Your task to perform on an android device: Open the calendar and show me this week's events? Image 0: 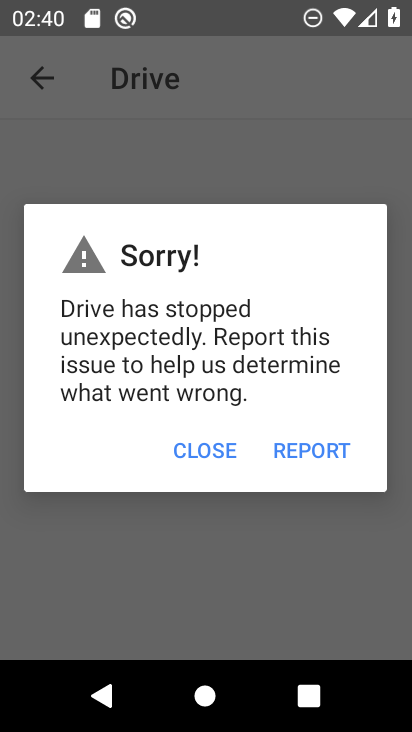
Step 0: press home button
Your task to perform on an android device: Open the calendar and show me this week's events? Image 1: 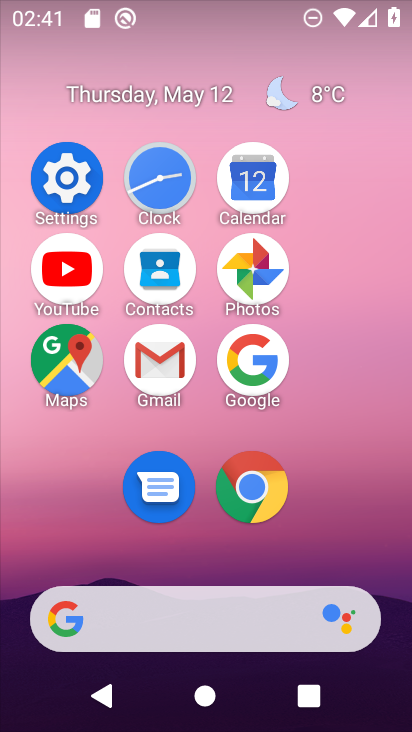
Step 1: click (239, 188)
Your task to perform on an android device: Open the calendar and show me this week's events? Image 2: 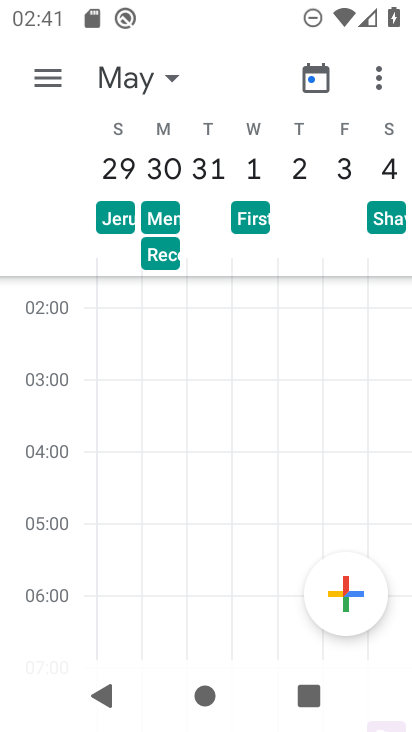
Step 2: click (48, 82)
Your task to perform on an android device: Open the calendar and show me this week's events? Image 3: 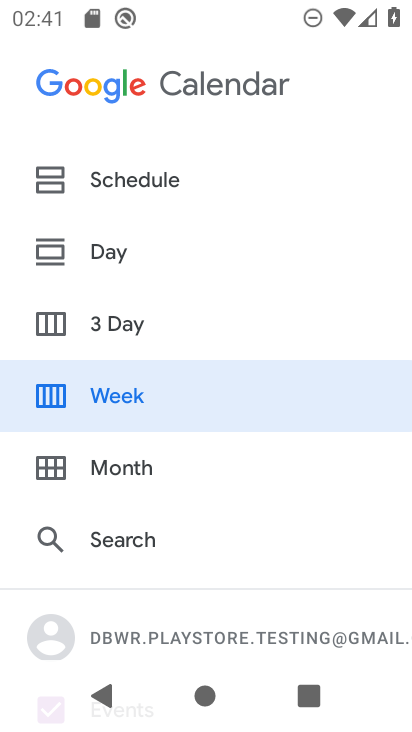
Step 3: click (113, 410)
Your task to perform on an android device: Open the calendar and show me this week's events? Image 4: 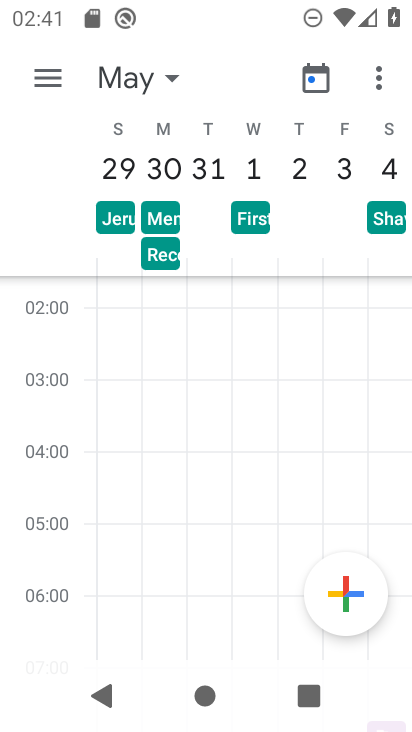
Step 4: task complete